Your task to perform on an android device: Show me recent news Image 0: 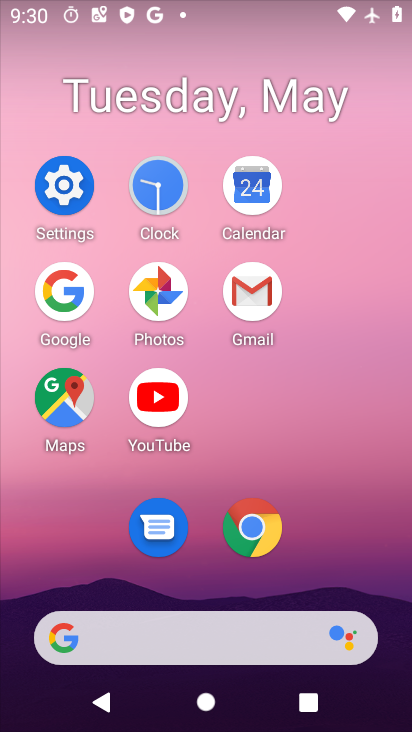
Step 0: click (69, 293)
Your task to perform on an android device: Show me recent news Image 1: 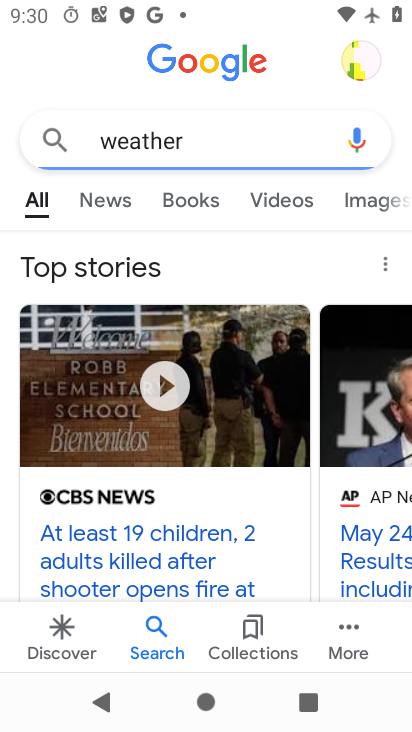
Step 1: click (224, 128)
Your task to perform on an android device: Show me recent news Image 2: 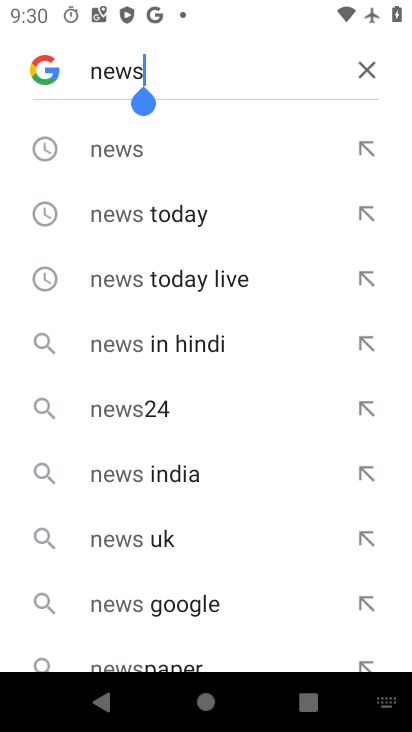
Step 2: click (364, 56)
Your task to perform on an android device: Show me recent news Image 3: 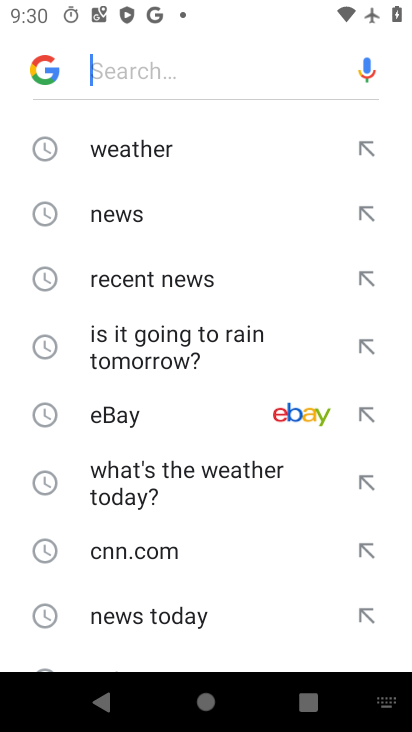
Step 3: click (154, 269)
Your task to perform on an android device: Show me recent news Image 4: 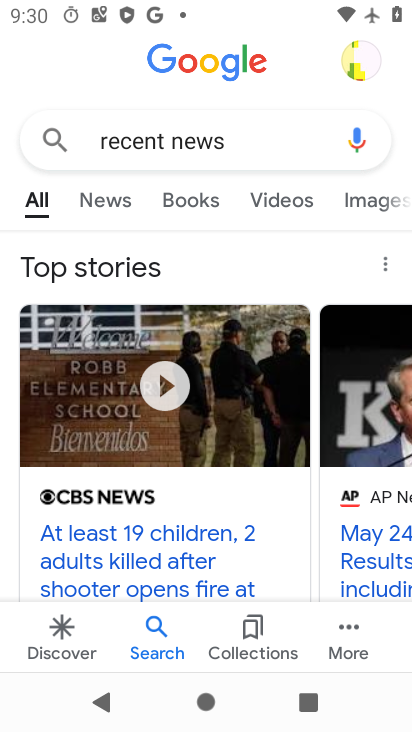
Step 4: task complete